Your task to perform on an android device: check battery use Image 0: 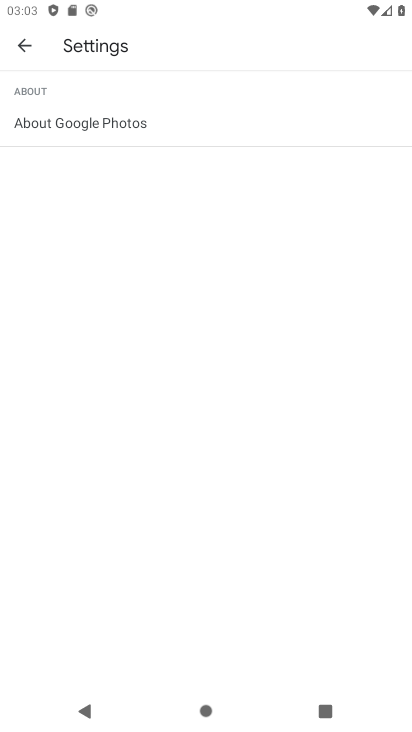
Step 0: press home button
Your task to perform on an android device: check battery use Image 1: 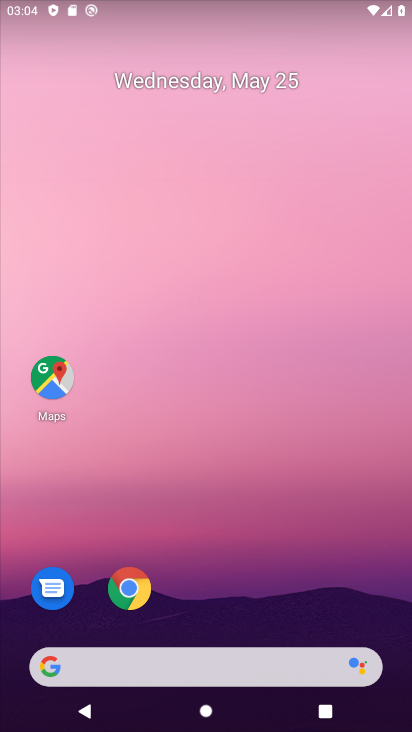
Step 1: drag from (260, 607) to (230, 48)
Your task to perform on an android device: check battery use Image 2: 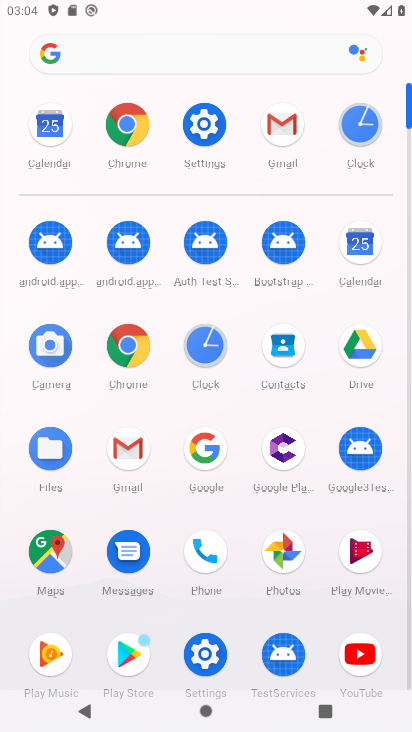
Step 2: click (222, 640)
Your task to perform on an android device: check battery use Image 3: 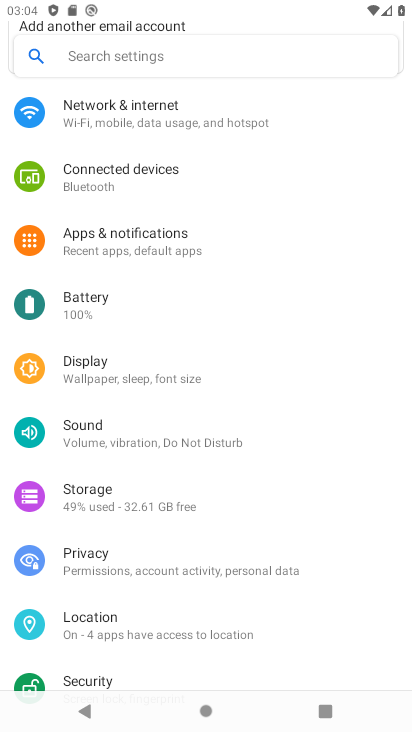
Step 3: click (139, 311)
Your task to perform on an android device: check battery use Image 4: 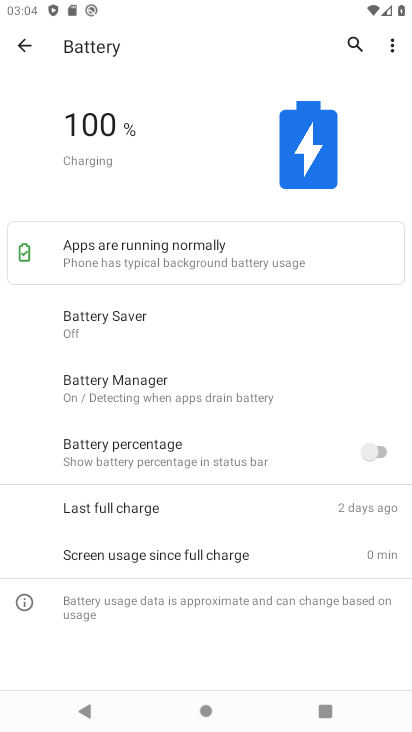
Step 4: task complete